Your task to perform on an android device: open app "Google Play services" (install if not already installed) Image 0: 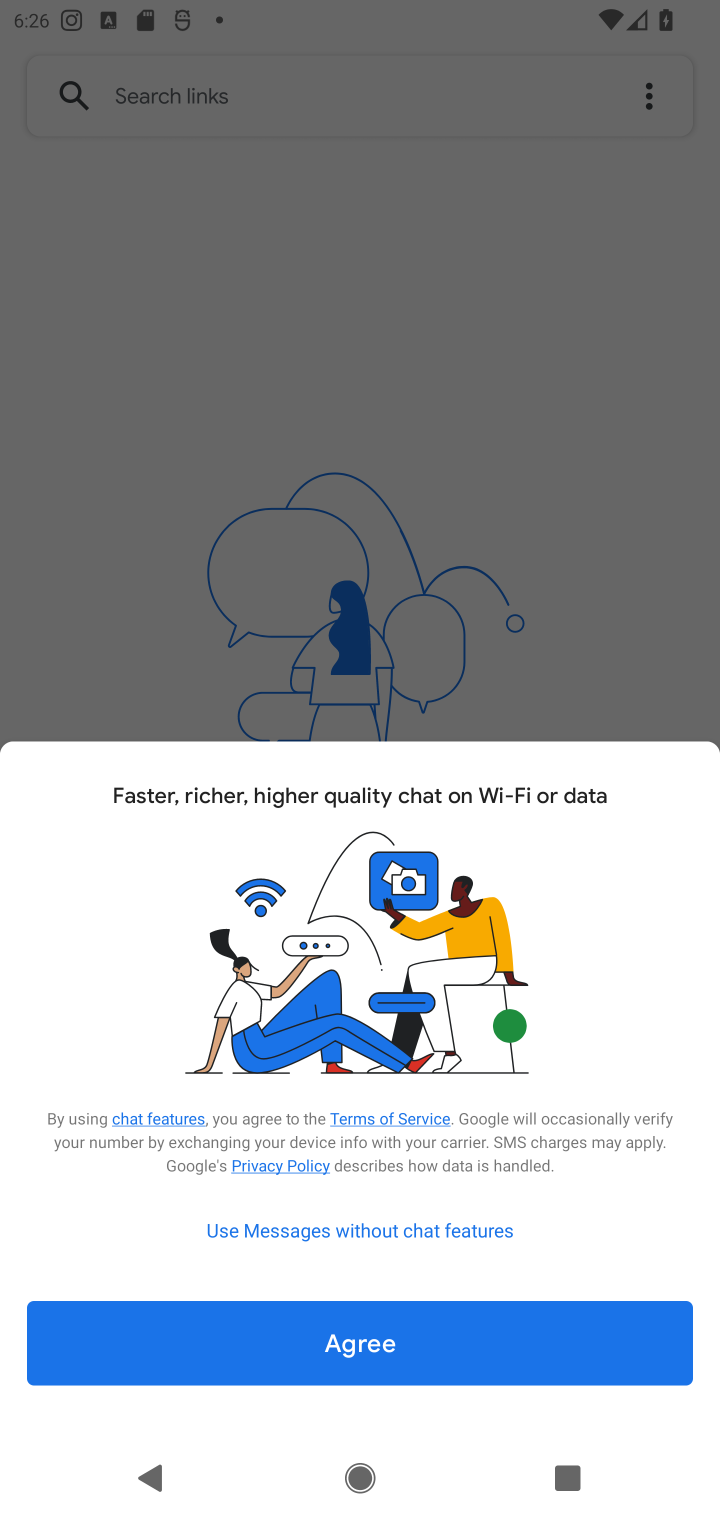
Step 0: press home button
Your task to perform on an android device: open app "Google Play services" (install if not already installed) Image 1: 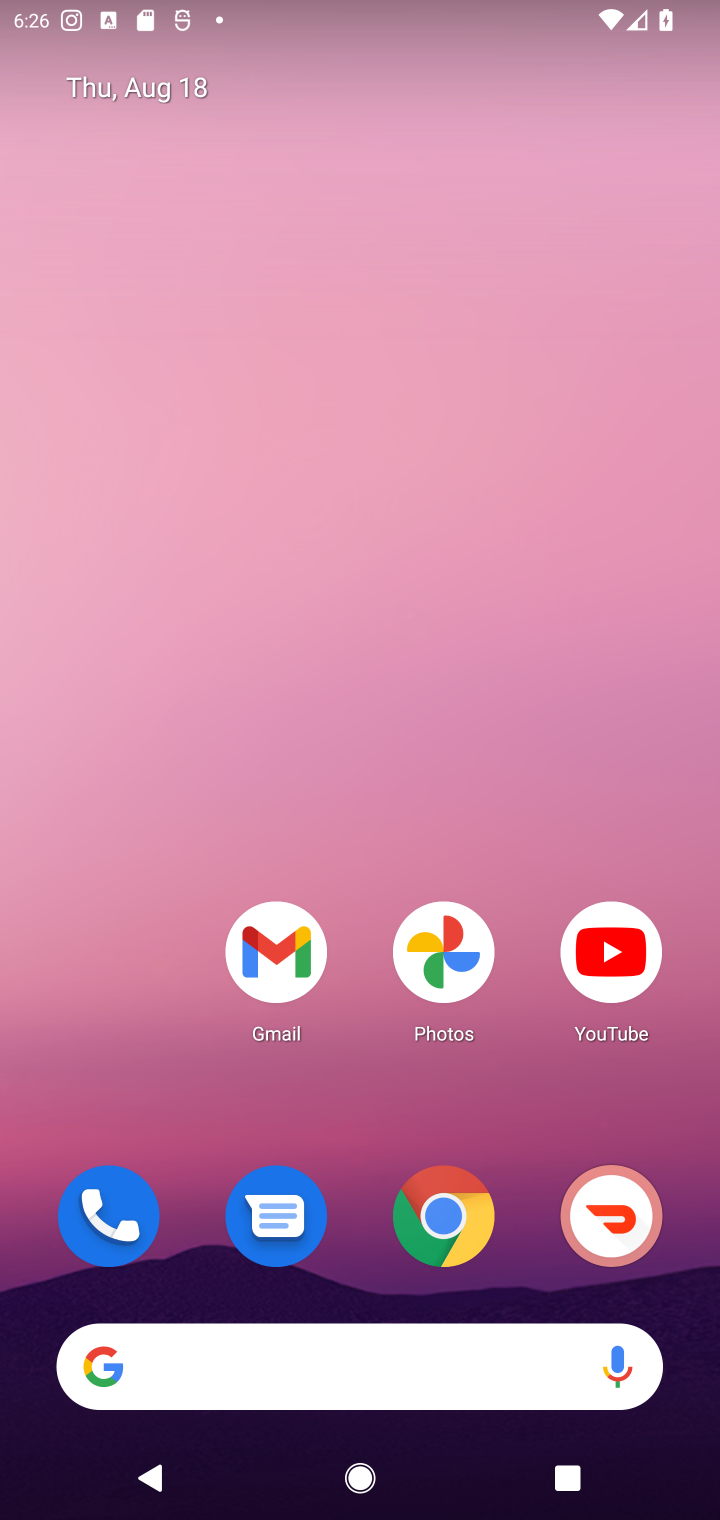
Step 1: drag from (367, 1064) to (352, 148)
Your task to perform on an android device: open app "Google Play services" (install if not already installed) Image 2: 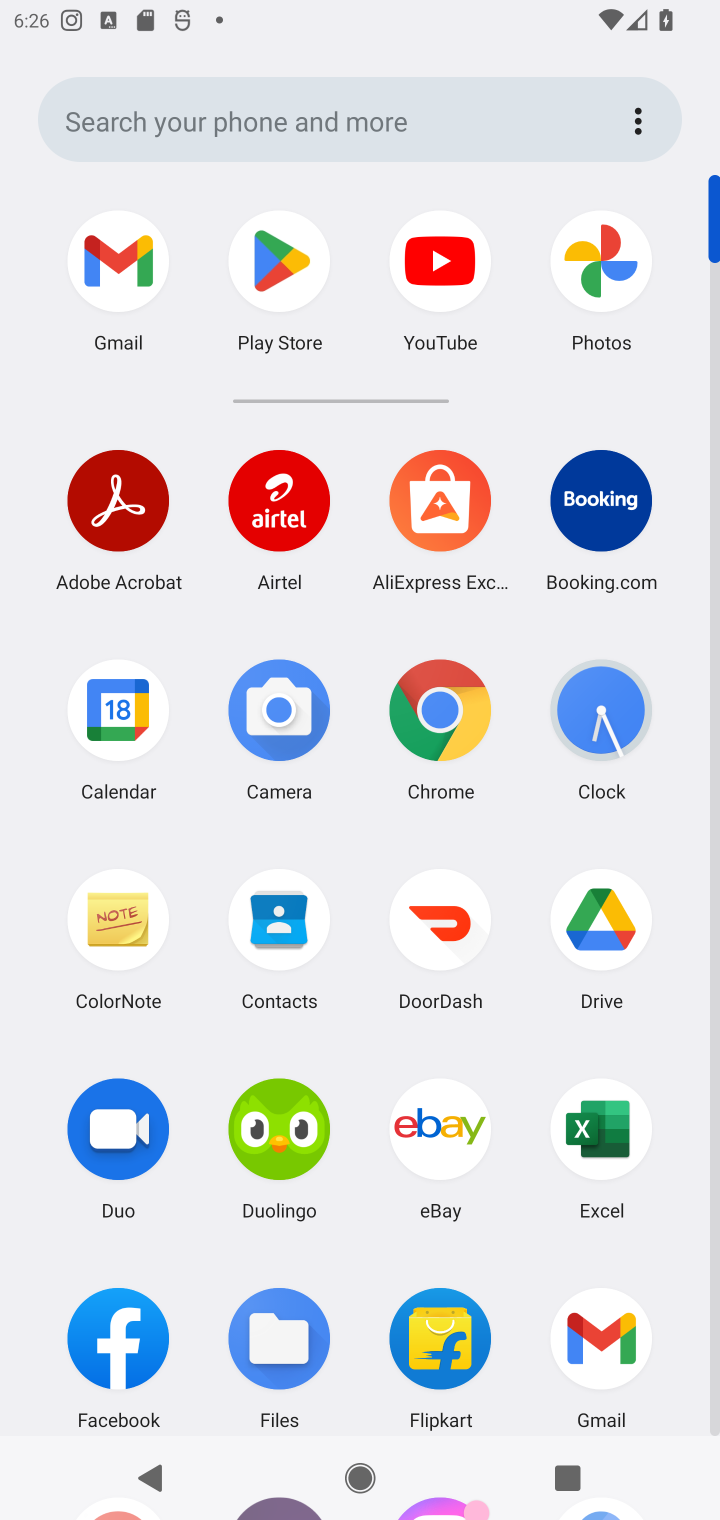
Step 2: click (279, 238)
Your task to perform on an android device: open app "Google Play services" (install if not already installed) Image 3: 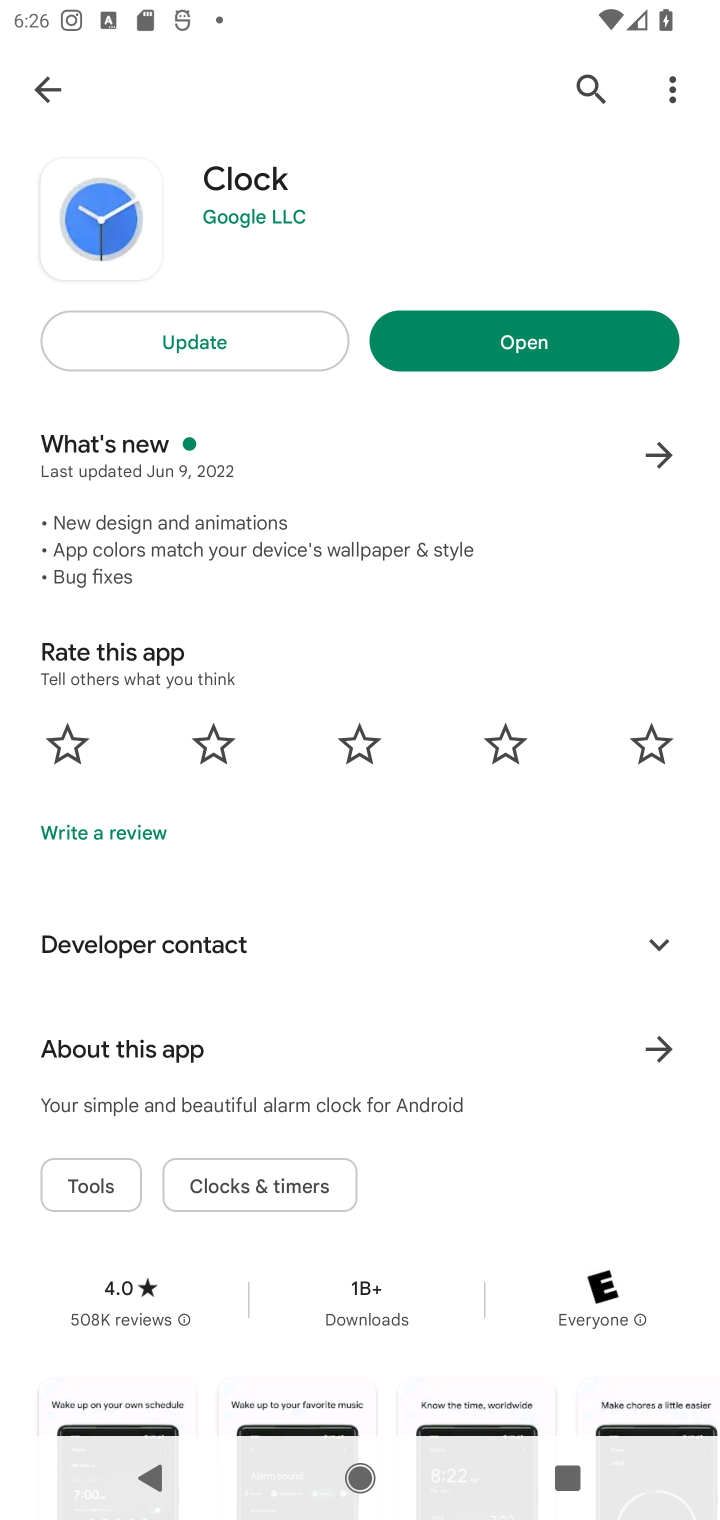
Step 3: click (598, 82)
Your task to perform on an android device: open app "Google Play services" (install if not already installed) Image 4: 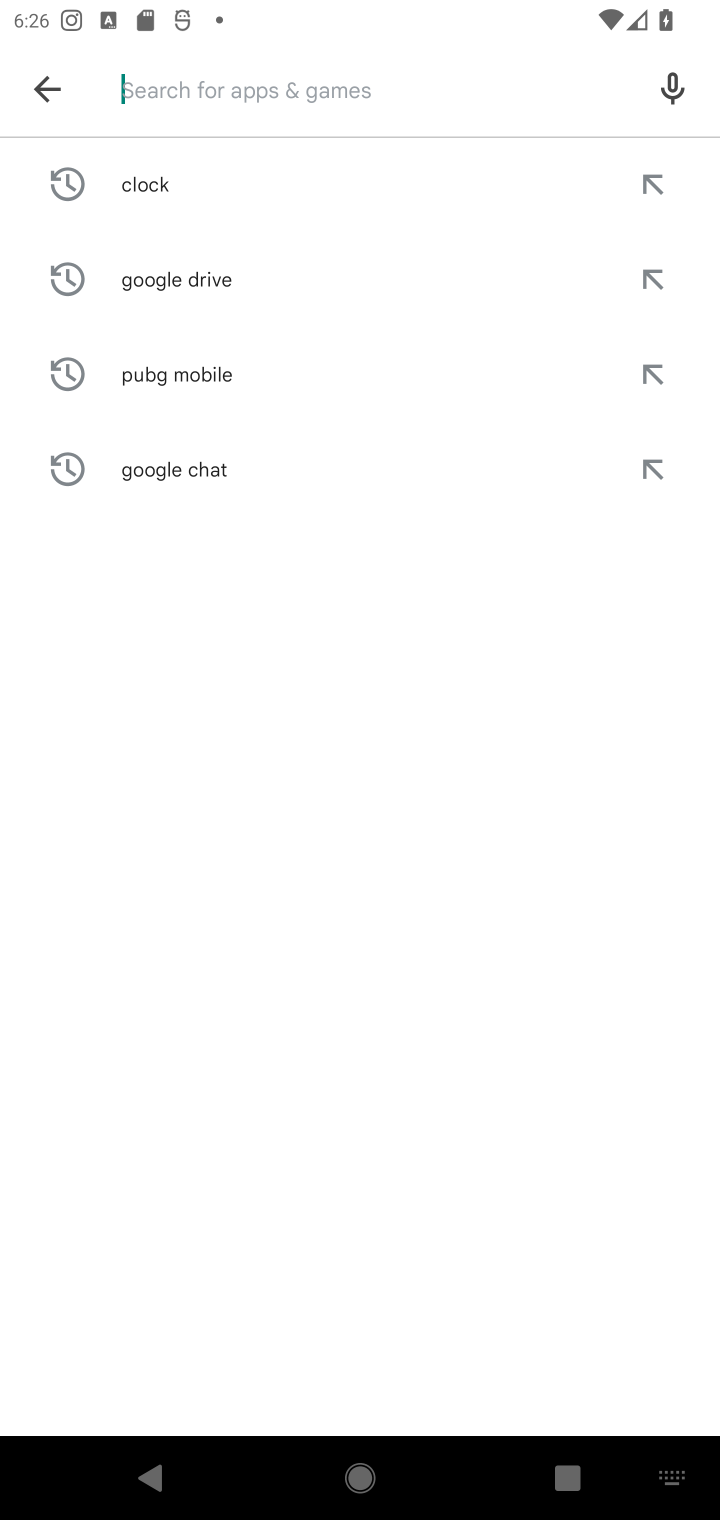
Step 4: type "Google Play services"
Your task to perform on an android device: open app "Google Play services" (install if not already installed) Image 5: 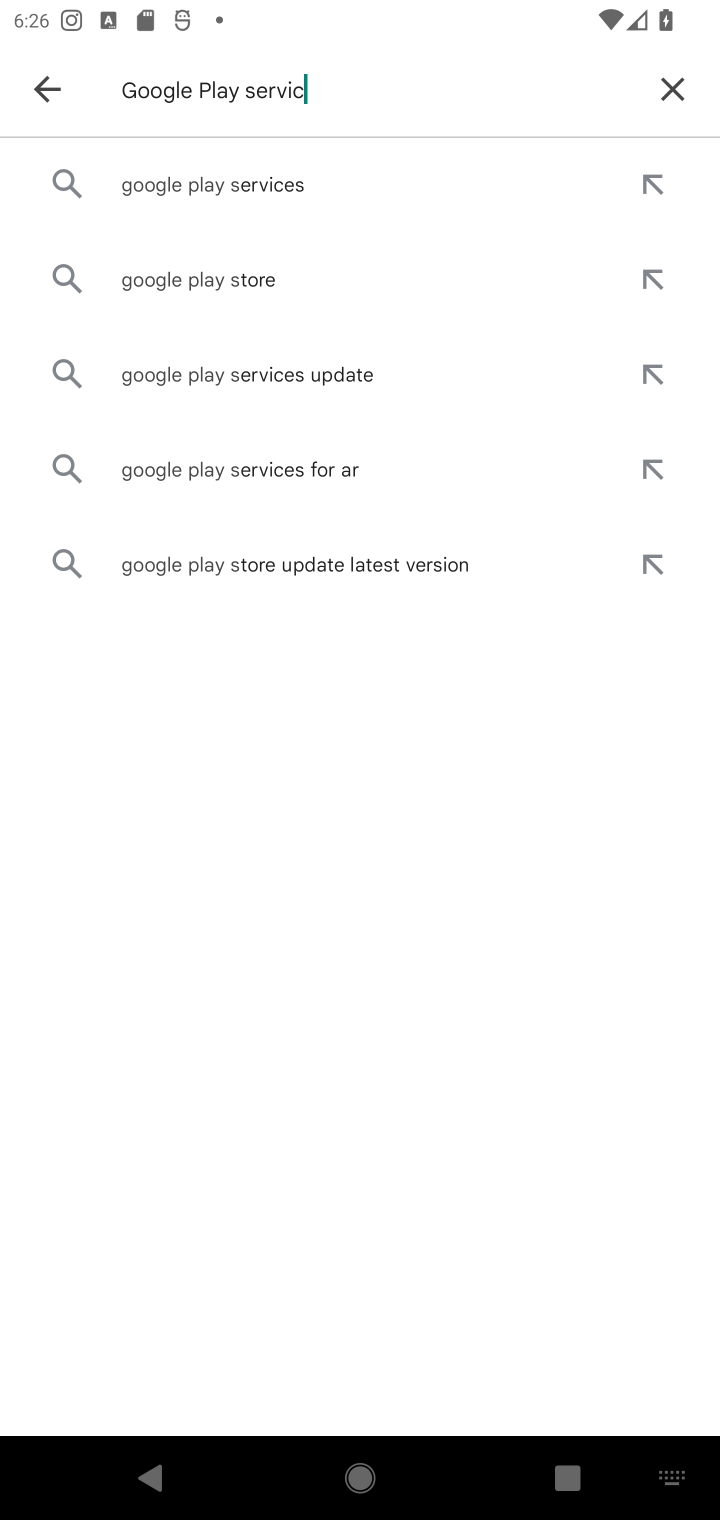
Step 5: type ""
Your task to perform on an android device: open app "Google Play services" (install if not already installed) Image 6: 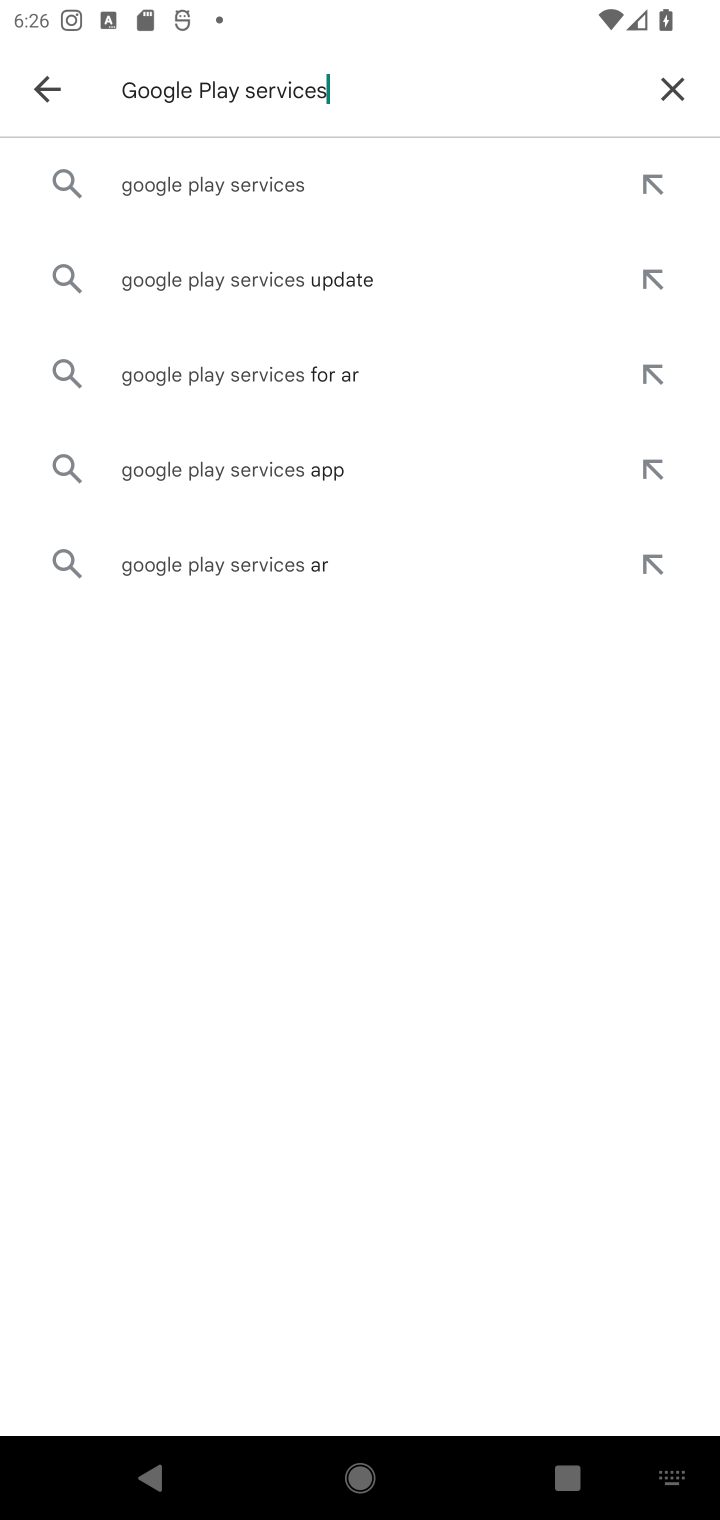
Step 6: click (238, 178)
Your task to perform on an android device: open app "Google Play services" (install if not already installed) Image 7: 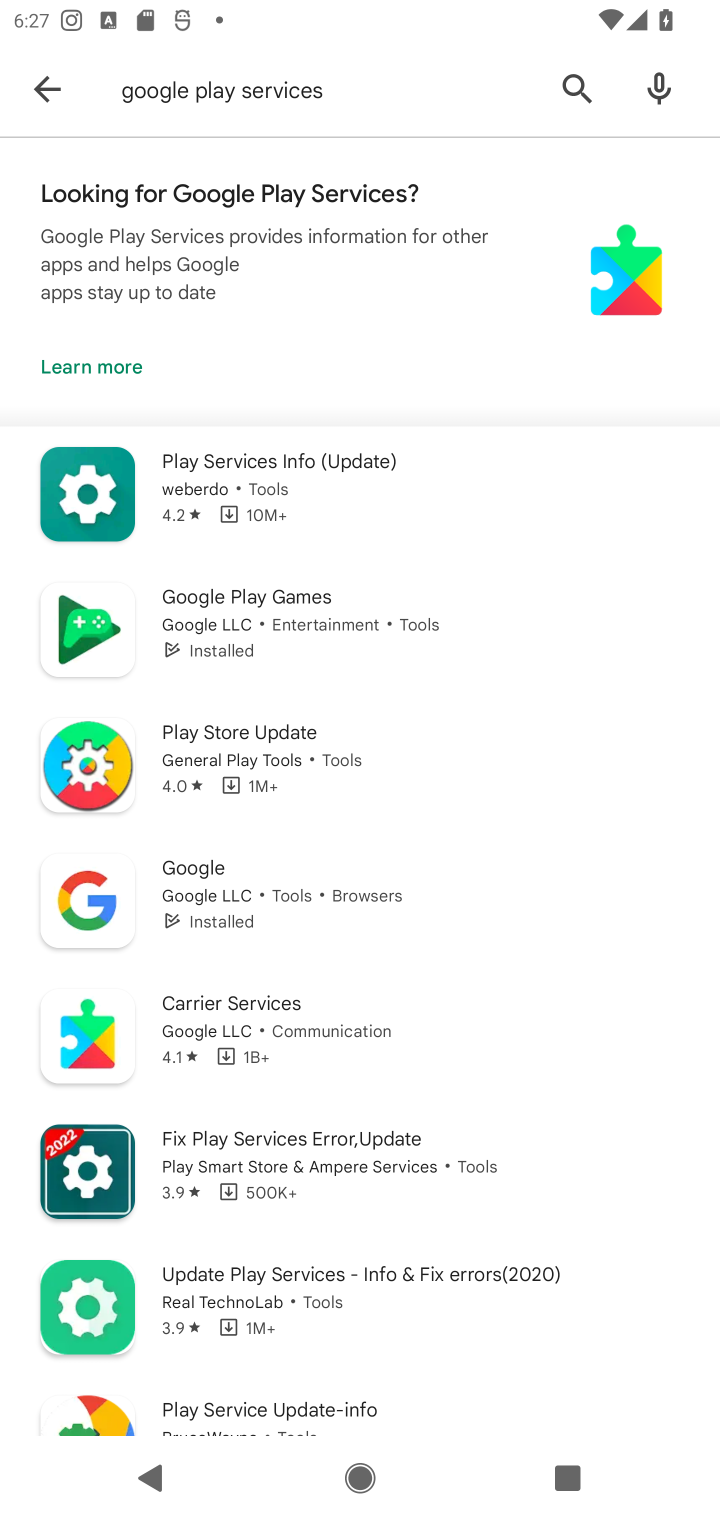
Step 7: click (562, 75)
Your task to perform on an android device: open app "Google Play services" (install if not already installed) Image 8: 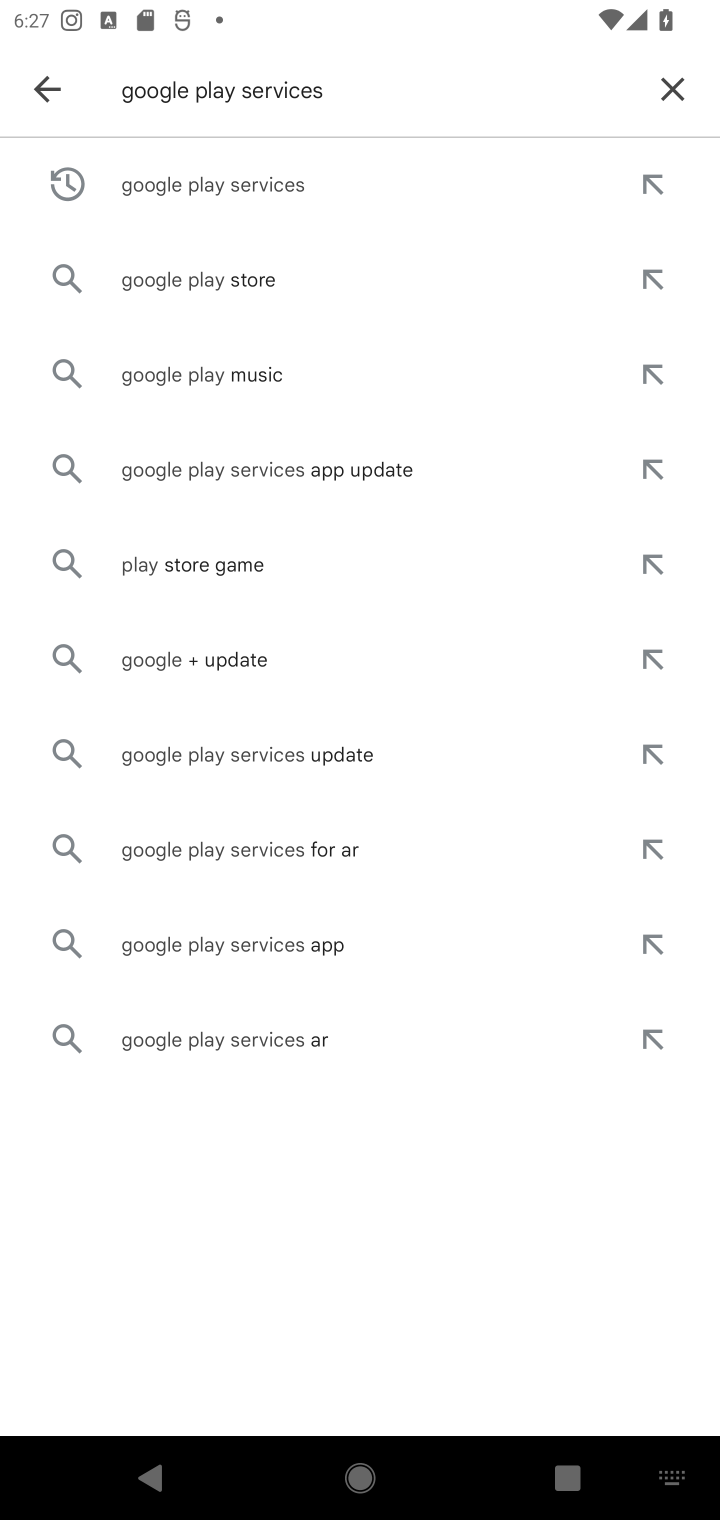
Step 8: type "Google Play services"
Your task to perform on an android device: open app "Google Play services" (install if not already installed) Image 9: 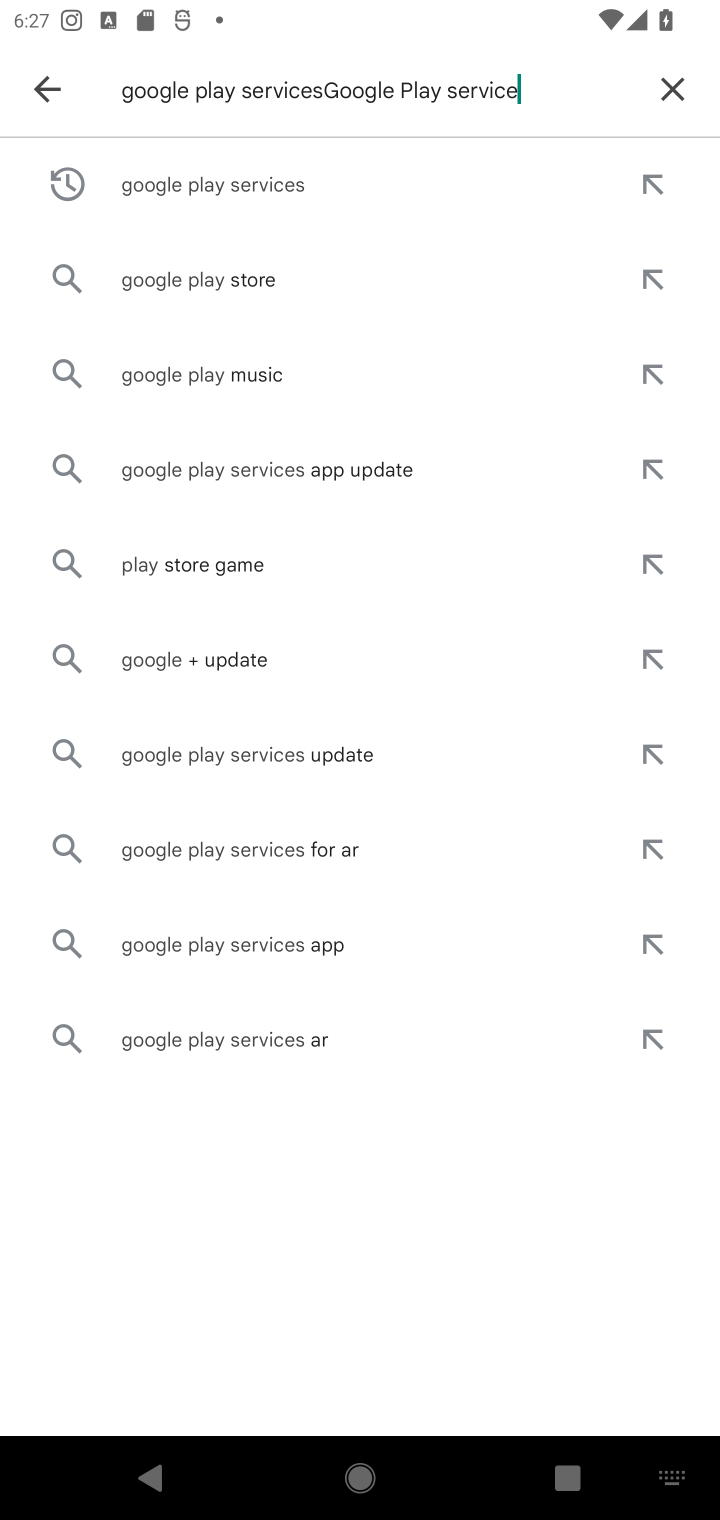
Step 9: type ""
Your task to perform on an android device: open app "Google Play services" (install if not already installed) Image 10: 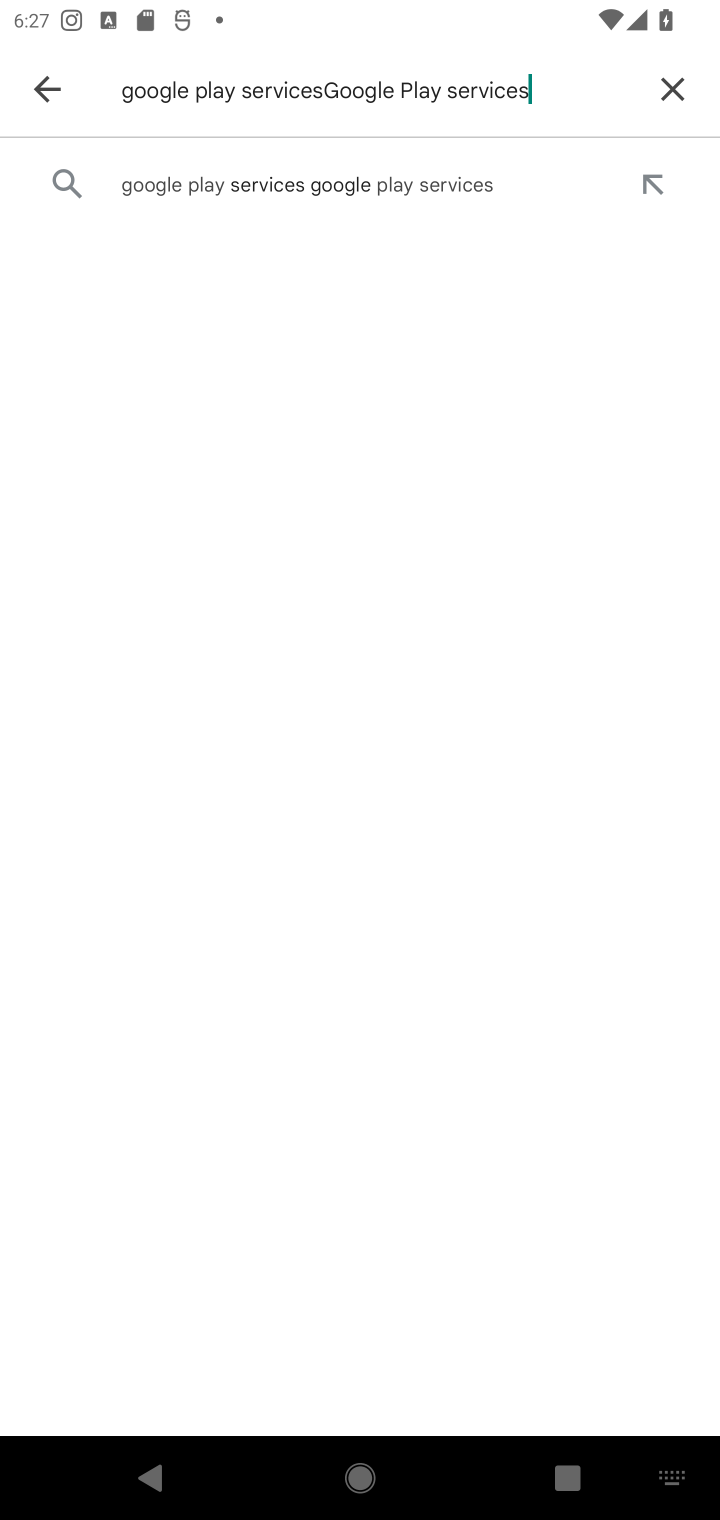
Step 10: click (442, 185)
Your task to perform on an android device: open app "Google Play services" (install if not already installed) Image 11: 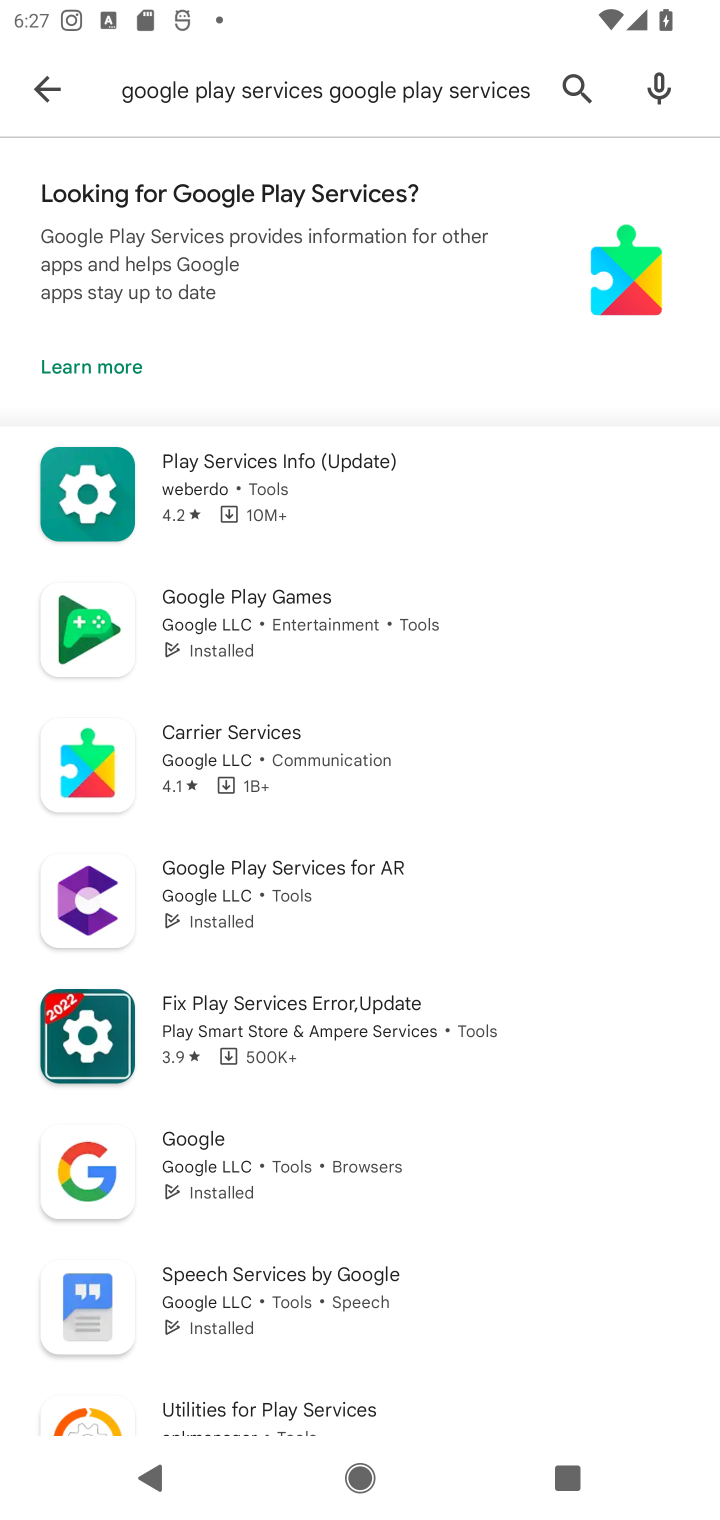
Step 11: click (386, 496)
Your task to perform on an android device: open app "Google Play services" (install if not already installed) Image 12: 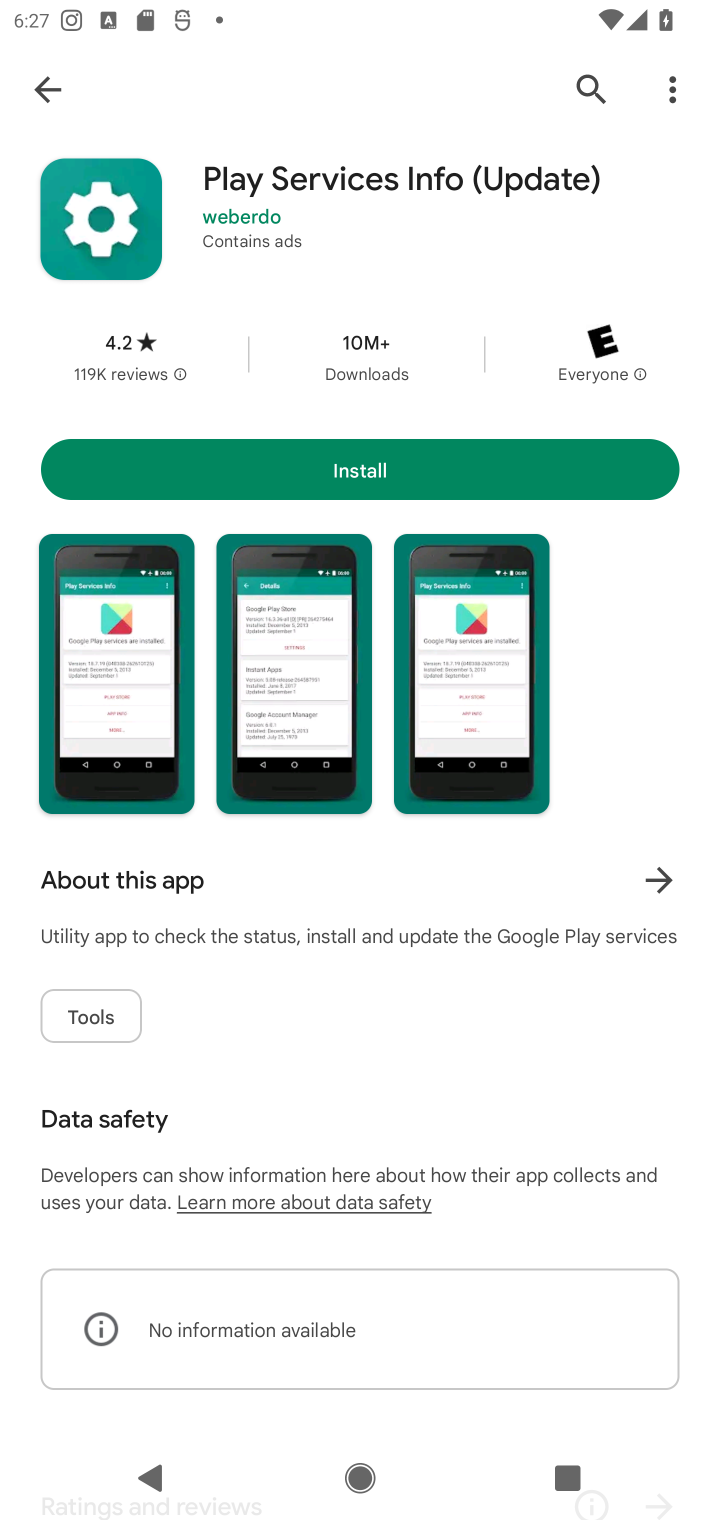
Step 12: click (377, 477)
Your task to perform on an android device: open app "Google Play services" (install if not already installed) Image 13: 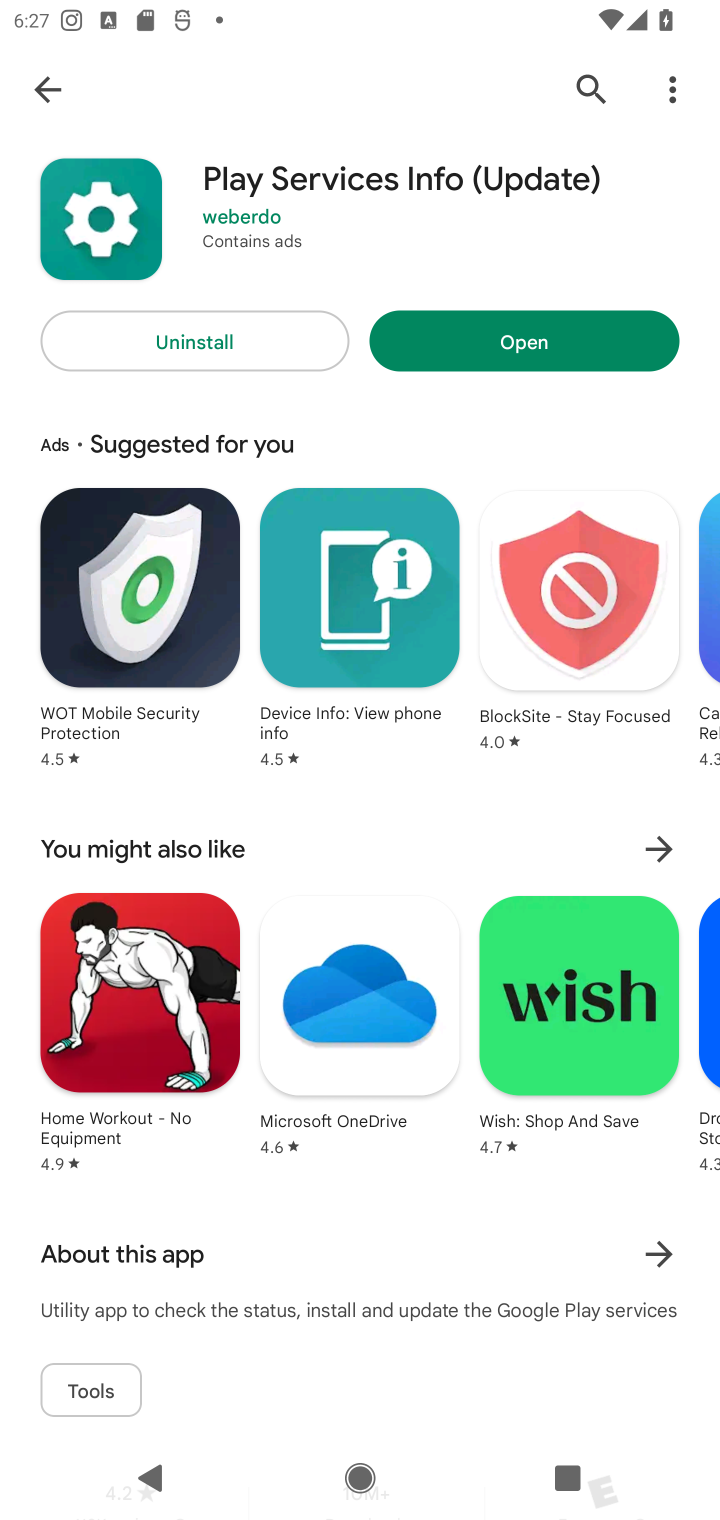
Step 13: click (499, 347)
Your task to perform on an android device: open app "Google Play services" (install if not already installed) Image 14: 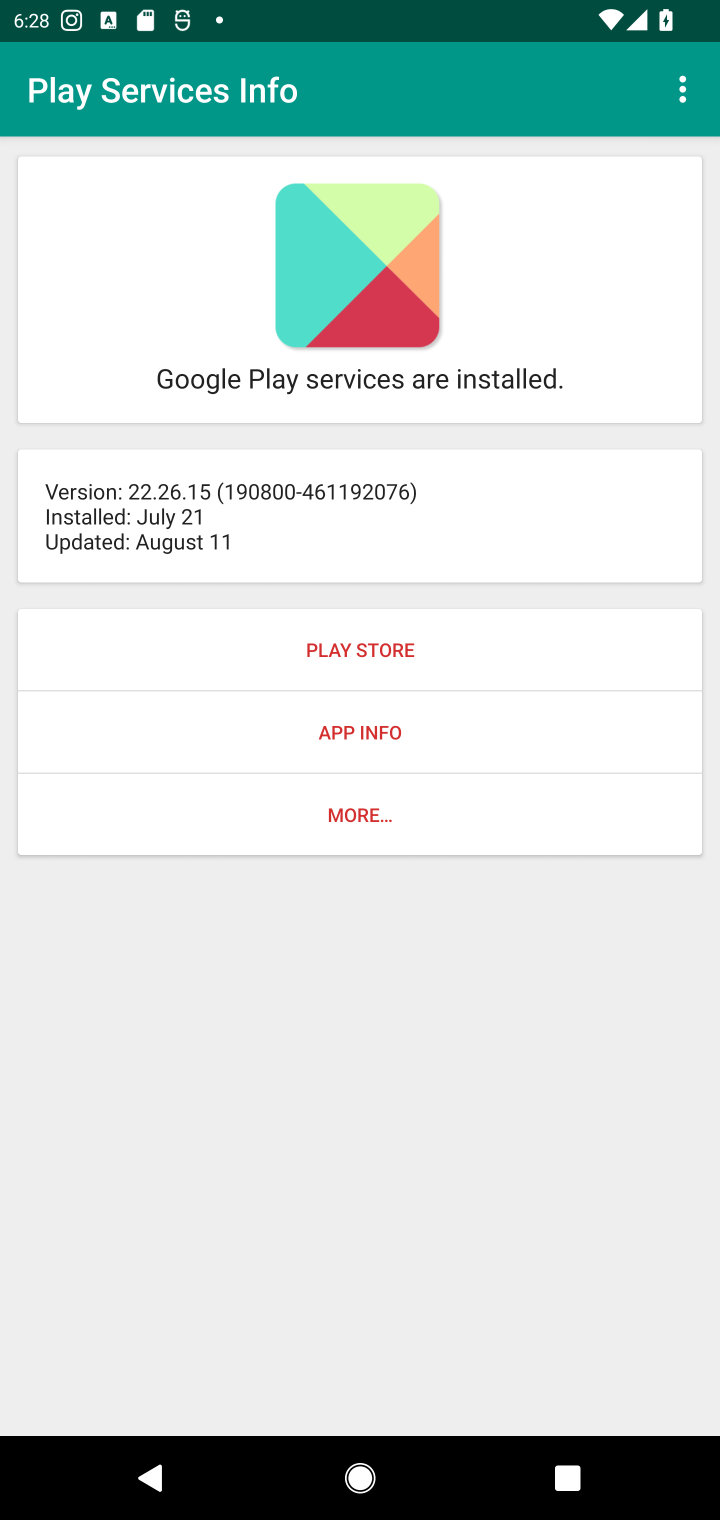
Step 14: task complete